Your task to perform on an android device: install app "Google Calendar" Image 0: 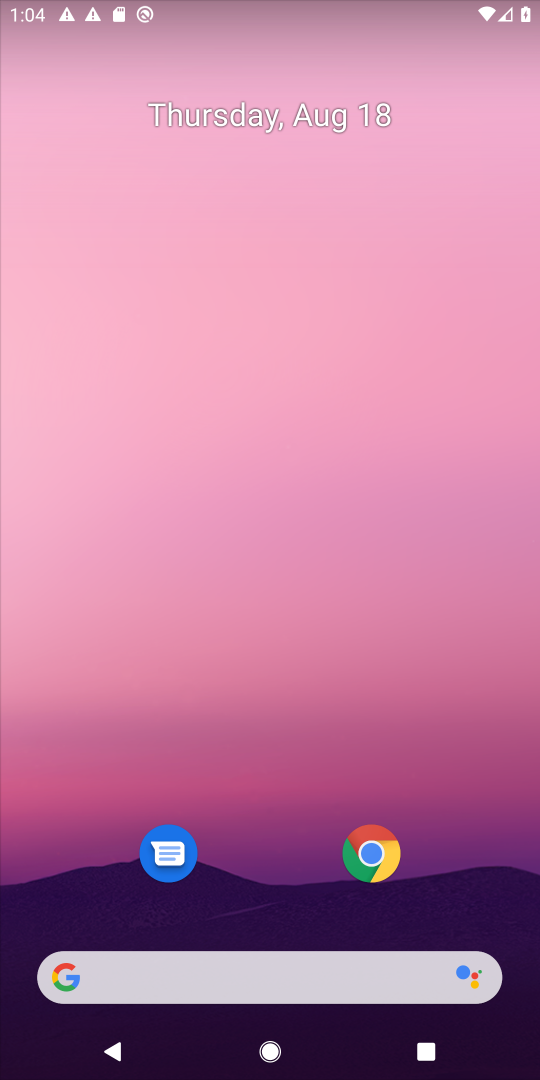
Step 0: drag from (268, 795) to (305, 264)
Your task to perform on an android device: install app "Google Calendar" Image 1: 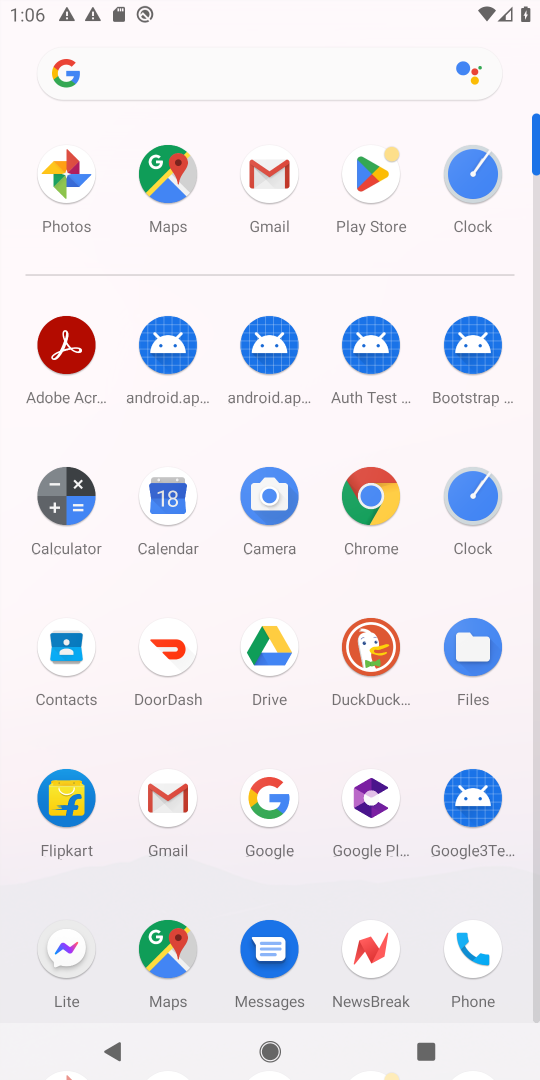
Step 1: task complete